Your task to perform on an android device: Go to Reddit.com Image 0: 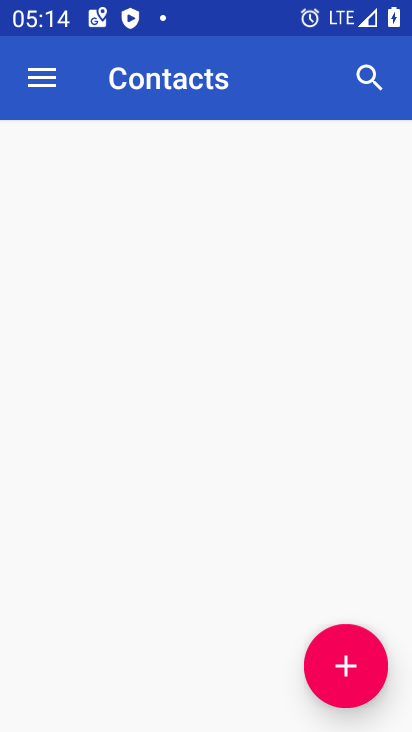
Step 0: drag from (309, 665) to (305, 76)
Your task to perform on an android device: Go to Reddit.com Image 1: 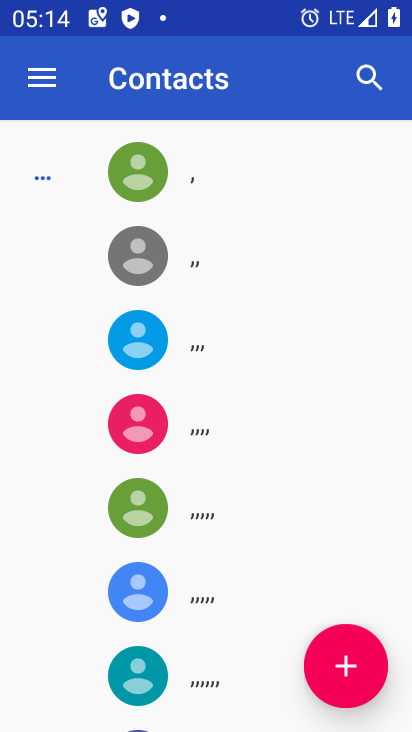
Step 1: press home button
Your task to perform on an android device: Go to Reddit.com Image 2: 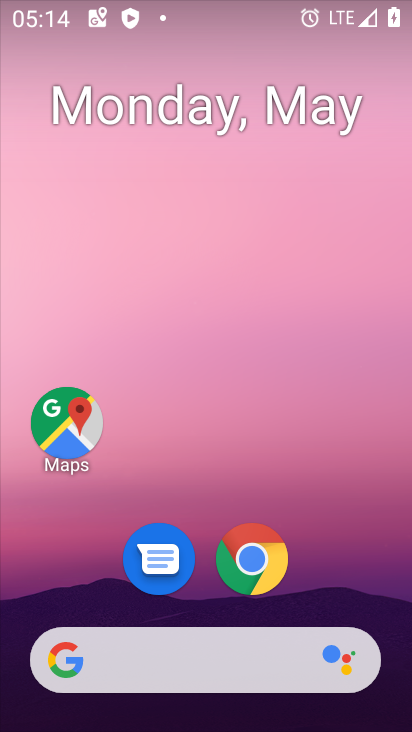
Step 2: drag from (198, 371) to (201, 0)
Your task to perform on an android device: Go to Reddit.com Image 3: 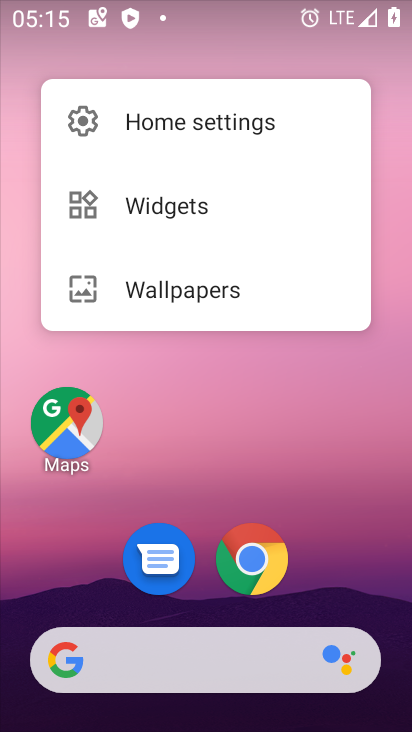
Step 3: click (335, 541)
Your task to perform on an android device: Go to Reddit.com Image 4: 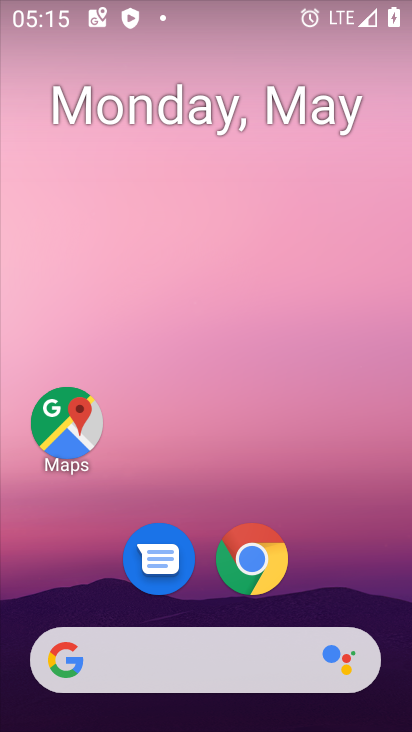
Step 4: drag from (327, 581) to (406, 6)
Your task to perform on an android device: Go to Reddit.com Image 5: 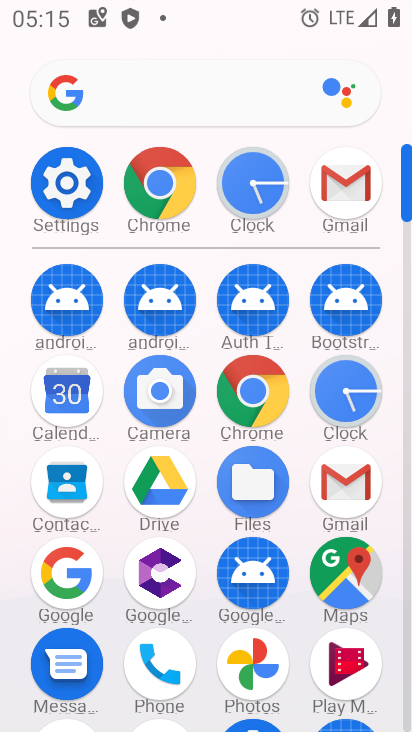
Step 5: click (261, 405)
Your task to perform on an android device: Go to Reddit.com Image 6: 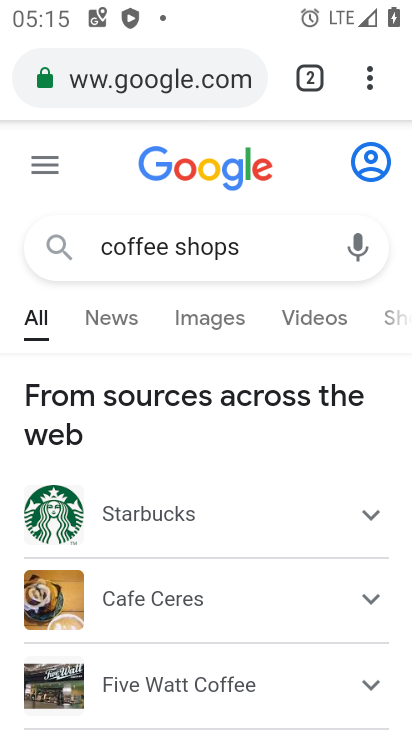
Step 6: click (225, 83)
Your task to perform on an android device: Go to Reddit.com Image 7: 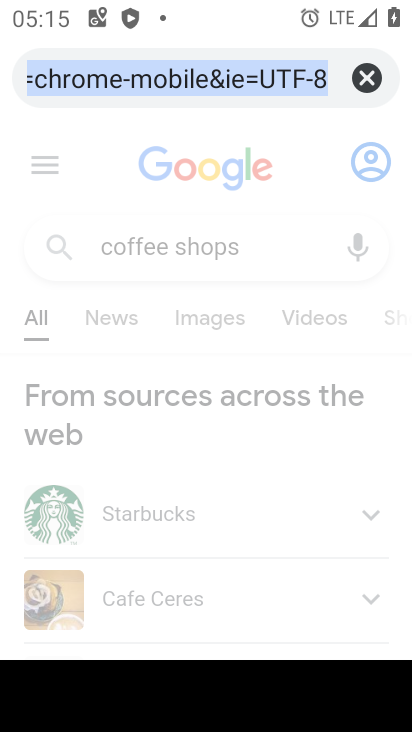
Step 7: type "reddit.com"
Your task to perform on an android device: Go to Reddit.com Image 8: 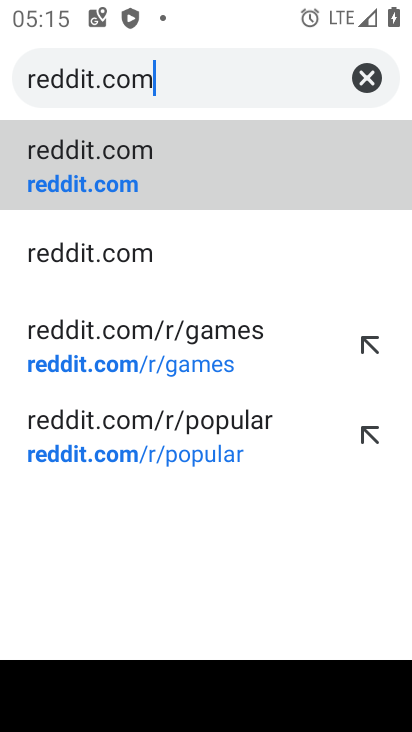
Step 8: click (281, 172)
Your task to perform on an android device: Go to Reddit.com Image 9: 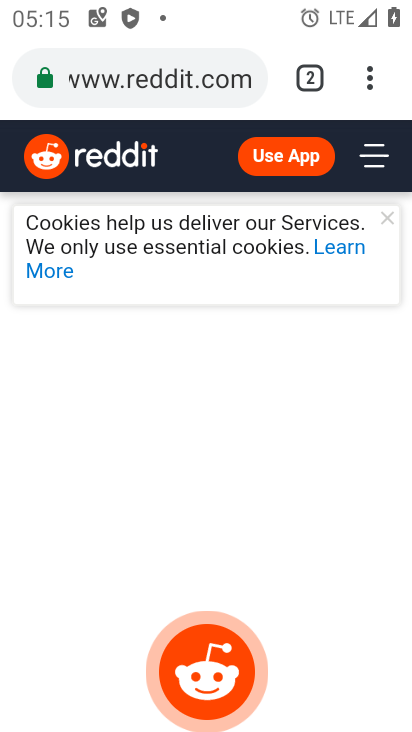
Step 9: task complete